Your task to perform on an android device: Open the calendar app, open the side menu, and click the "Day" option Image 0: 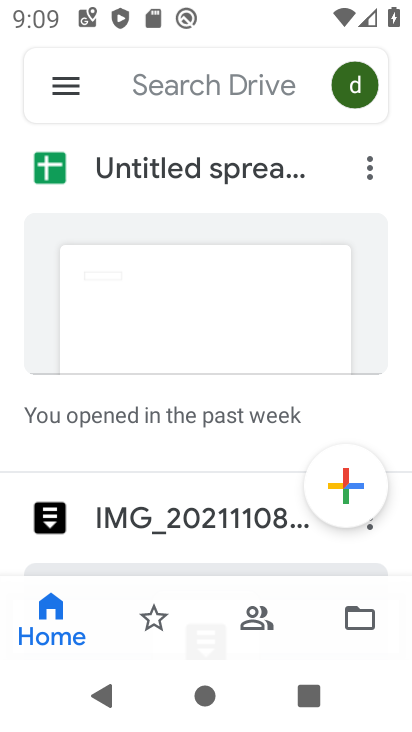
Step 0: press home button
Your task to perform on an android device: Open the calendar app, open the side menu, and click the "Day" option Image 1: 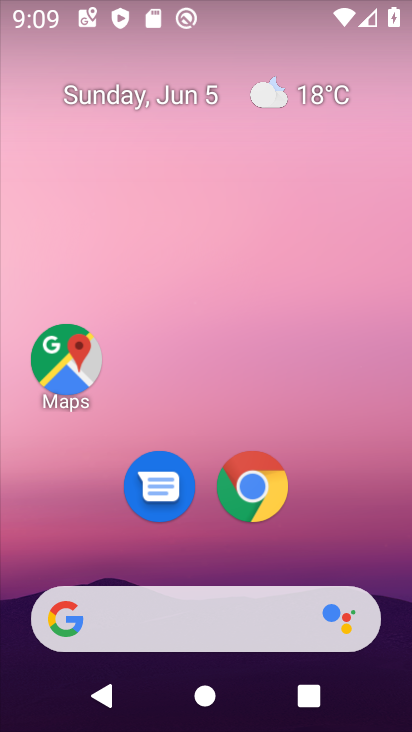
Step 1: drag from (361, 498) to (366, 183)
Your task to perform on an android device: Open the calendar app, open the side menu, and click the "Day" option Image 2: 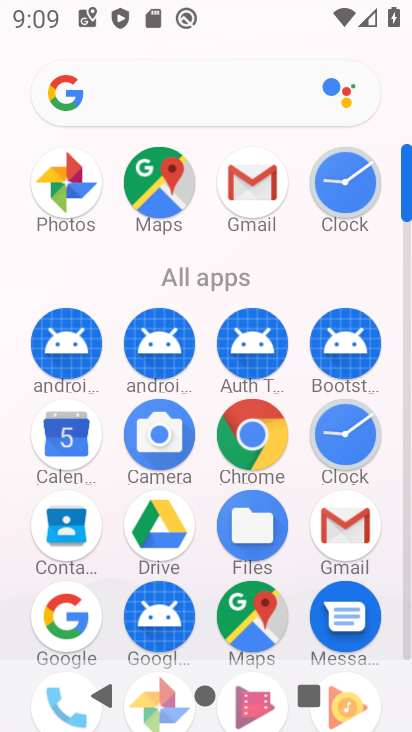
Step 2: click (75, 442)
Your task to perform on an android device: Open the calendar app, open the side menu, and click the "Day" option Image 3: 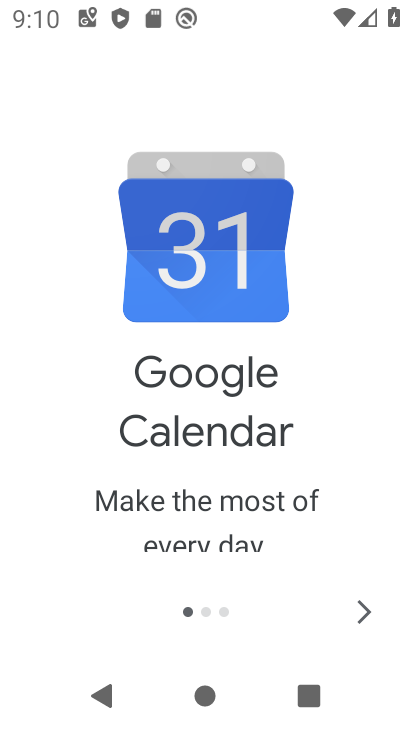
Step 3: click (360, 607)
Your task to perform on an android device: Open the calendar app, open the side menu, and click the "Day" option Image 4: 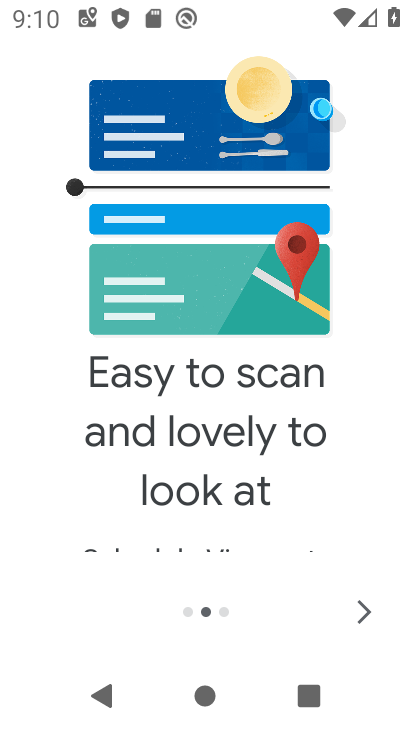
Step 4: click (359, 606)
Your task to perform on an android device: Open the calendar app, open the side menu, and click the "Day" option Image 5: 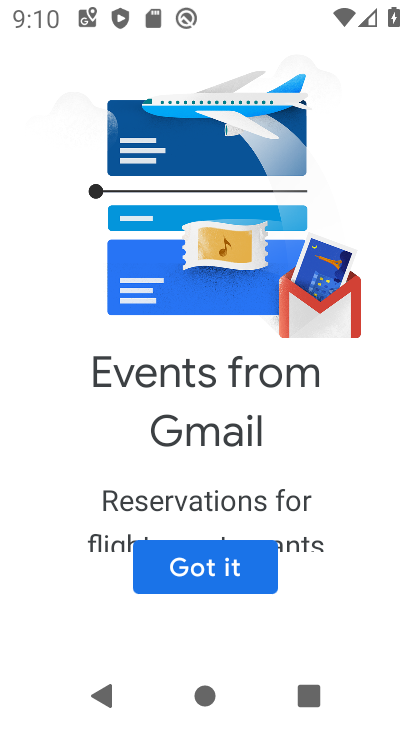
Step 5: click (201, 570)
Your task to perform on an android device: Open the calendar app, open the side menu, and click the "Day" option Image 6: 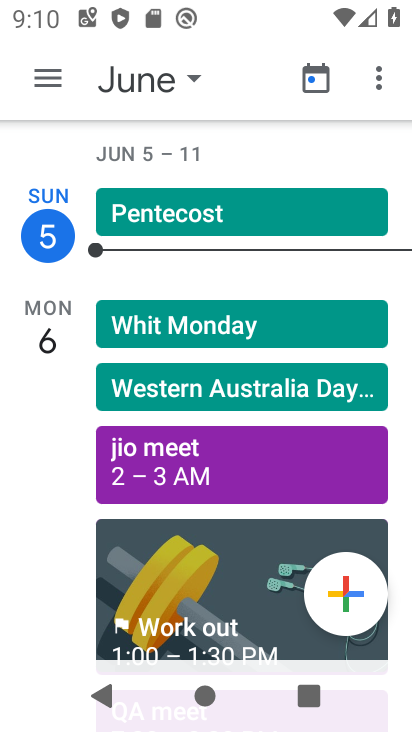
Step 6: click (40, 77)
Your task to perform on an android device: Open the calendar app, open the side menu, and click the "Day" option Image 7: 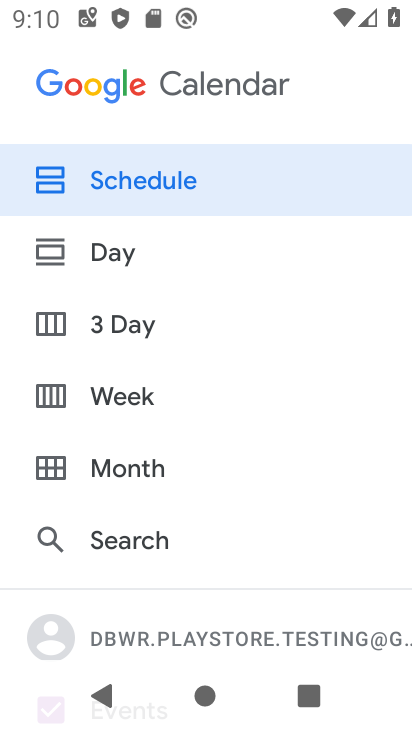
Step 7: click (111, 255)
Your task to perform on an android device: Open the calendar app, open the side menu, and click the "Day" option Image 8: 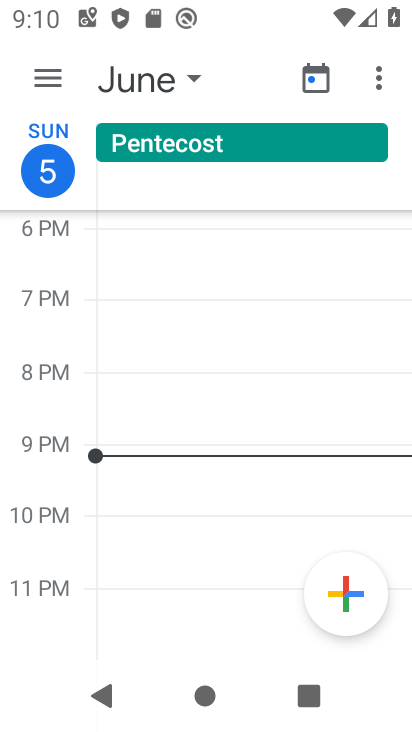
Step 8: task complete